Your task to perform on an android device: turn on wifi Image 0: 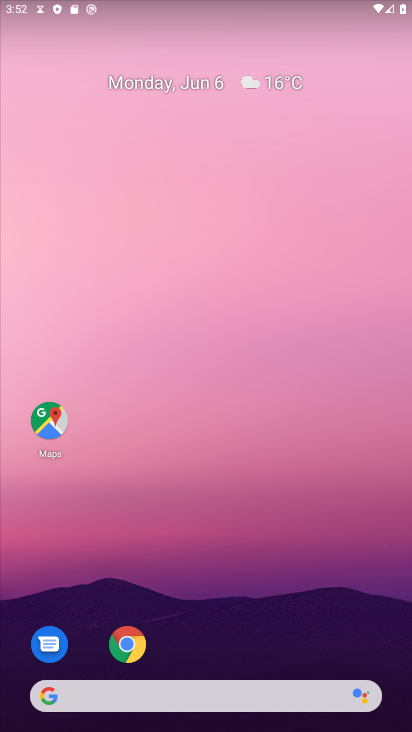
Step 0: drag from (171, 68) to (245, 684)
Your task to perform on an android device: turn on wifi Image 1: 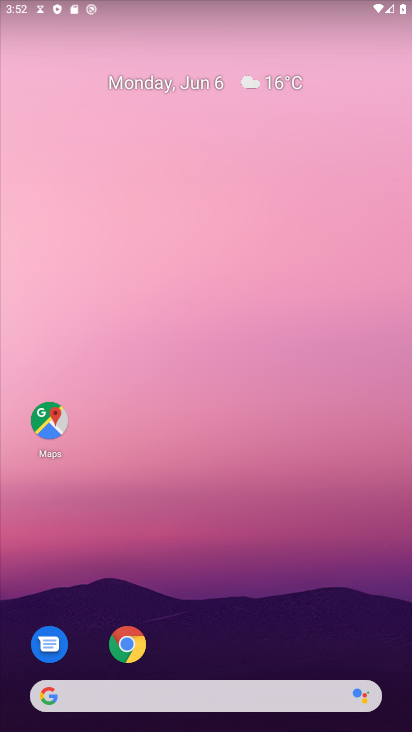
Step 1: task complete